Your task to perform on an android device: snooze an email in the gmail app Image 0: 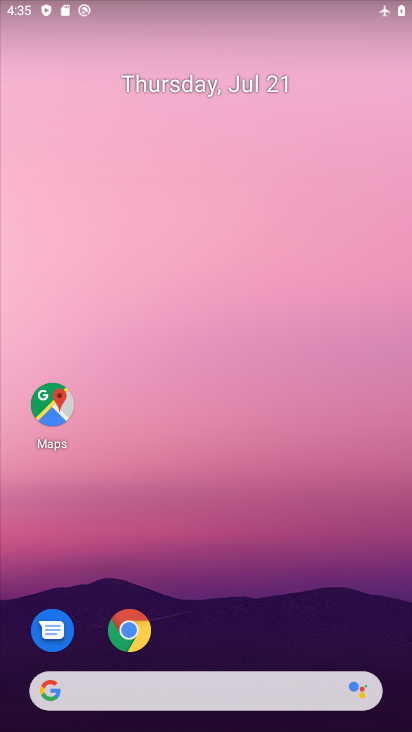
Step 0: drag from (364, 623) to (241, 28)
Your task to perform on an android device: snooze an email in the gmail app Image 1: 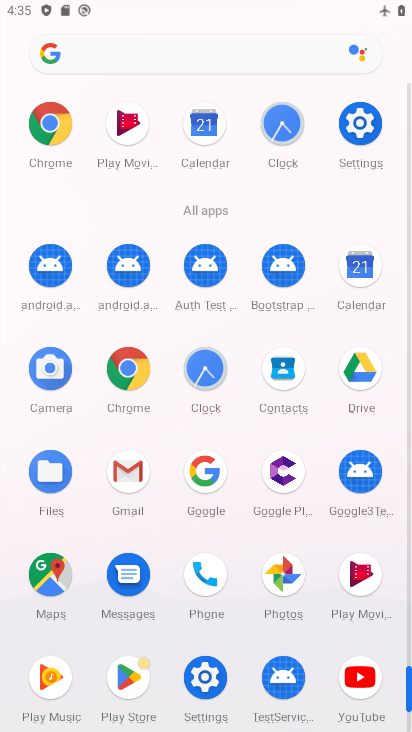
Step 1: click (121, 468)
Your task to perform on an android device: snooze an email in the gmail app Image 2: 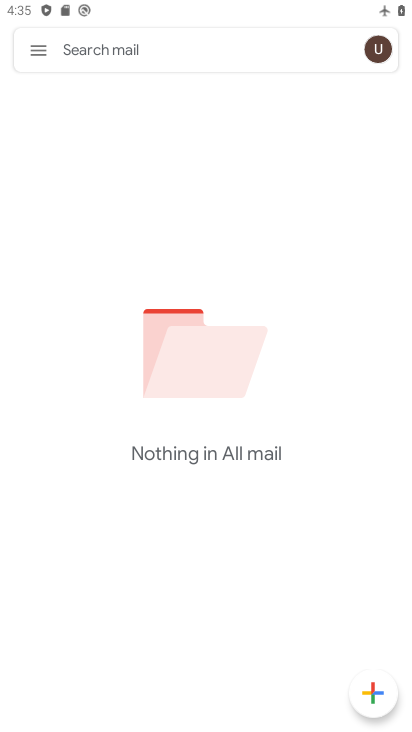
Step 2: click (37, 52)
Your task to perform on an android device: snooze an email in the gmail app Image 3: 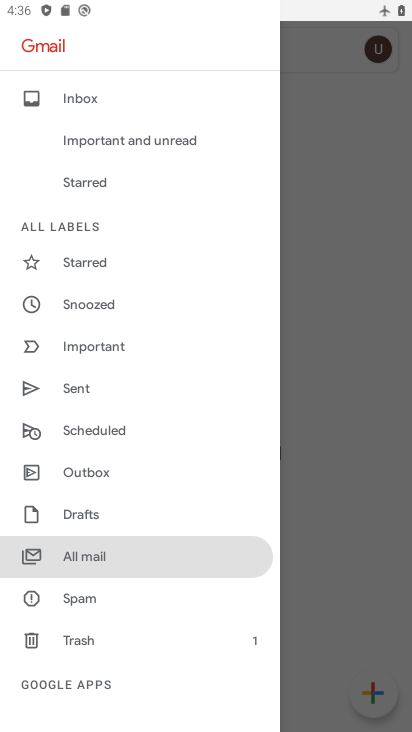
Step 3: click (140, 555)
Your task to perform on an android device: snooze an email in the gmail app Image 4: 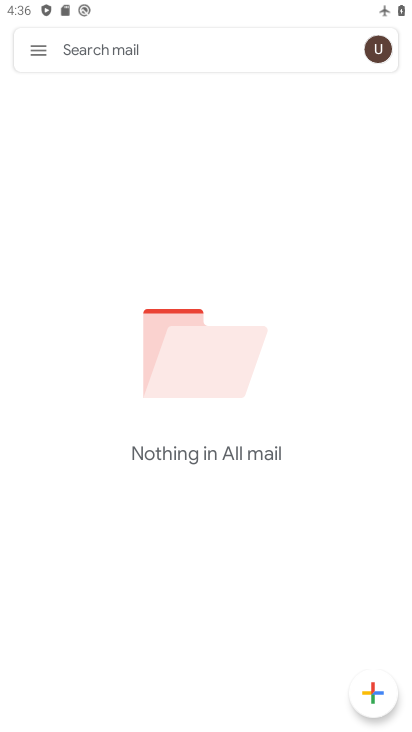
Step 4: task complete